Your task to perform on an android device: Turn on the flashlight Image 0: 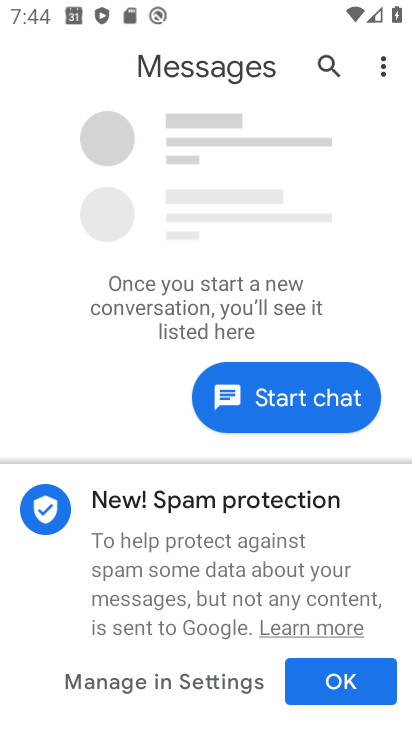
Step 0: press home button
Your task to perform on an android device: Turn on the flashlight Image 1: 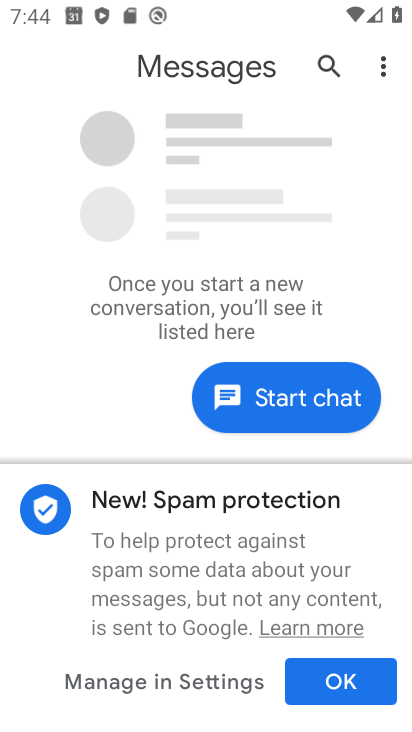
Step 1: press home button
Your task to perform on an android device: Turn on the flashlight Image 2: 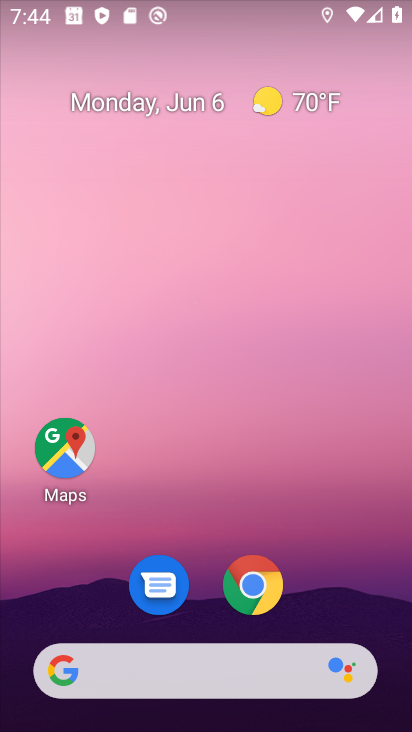
Step 2: drag from (204, 535) to (245, 0)
Your task to perform on an android device: Turn on the flashlight Image 3: 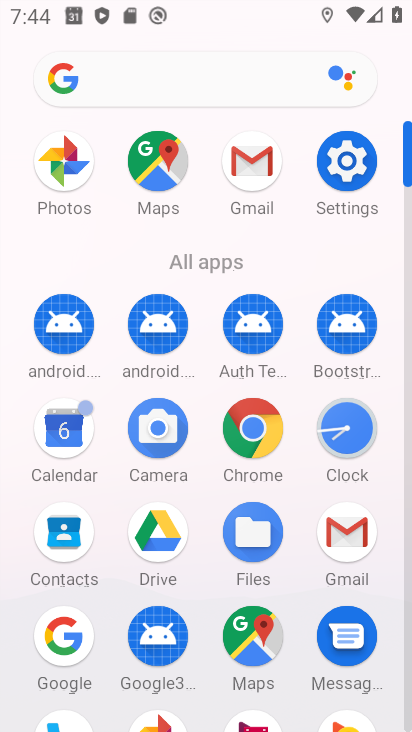
Step 3: click (353, 157)
Your task to perform on an android device: Turn on the flashlight Image 4: 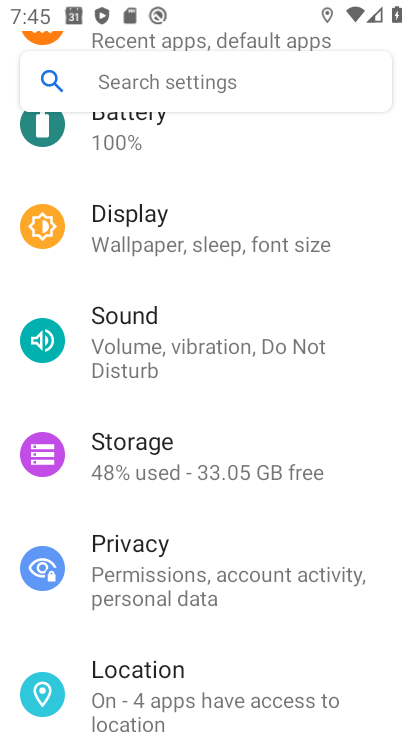
Step 4: drag from (277, 183) to (261, 591)
Your task to perform on an android device: Turn on the flashlight Image 5: 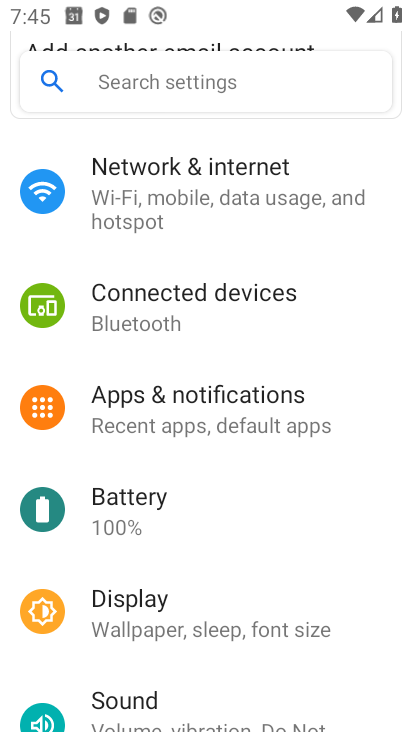
Step 5: drag from (192, 211) to (207, 731)
Your task to perform on an android device: Turn on the flashlight Image 6: 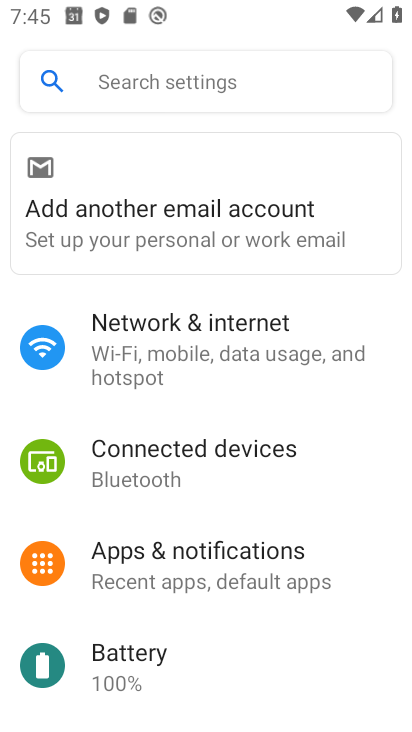
Step 6: click (237, 74)
Your task to perform on an android device: Turn on the flashlight Image 7: 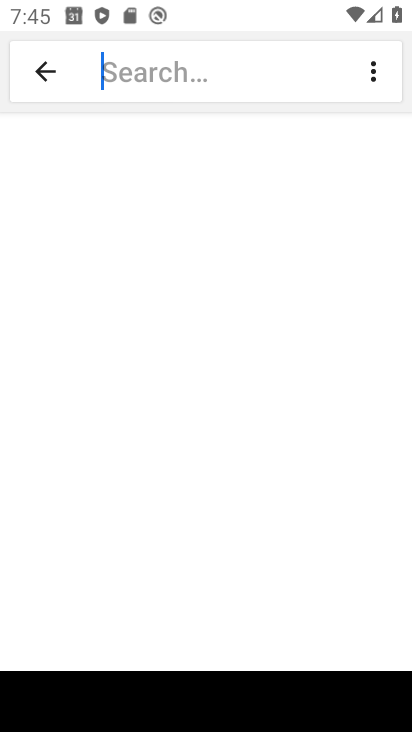
Step 7: type "Flashlight"
Your task to perform on an android device: Turn on the flashlight Image 8: 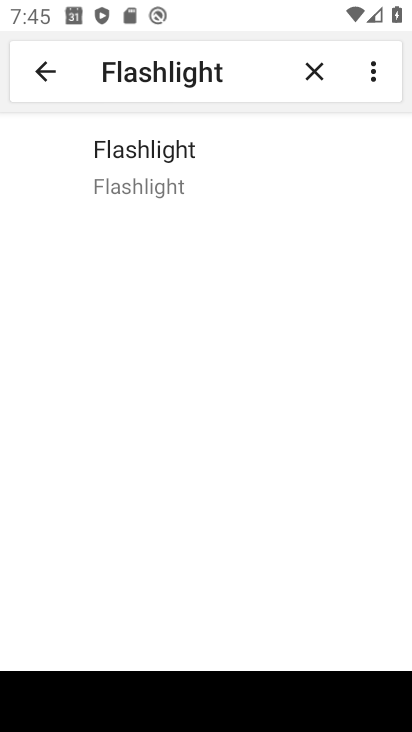
Step 8: click (170, 168)
Your task to perform on an android device: Turn on the flashlight Image 9: 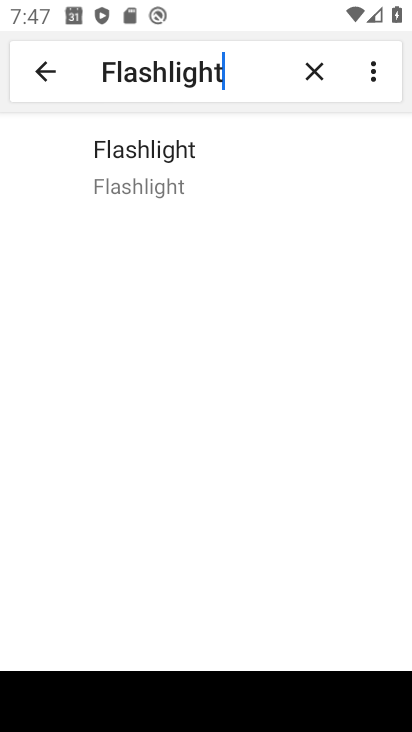
Step 9: task complete